Your task to perform on an android device: open a bookmark in the chrome app Image 0: 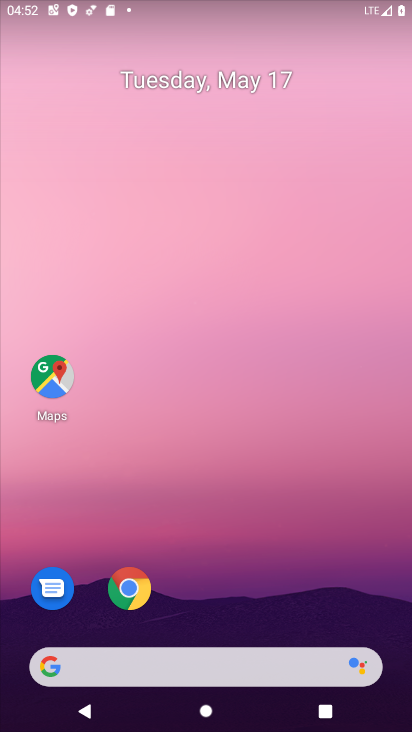
Step 0: drag from (235, 583) to (274, 167)
Your task to perform on an android device: open a bookmark in the chrome app Image 1: 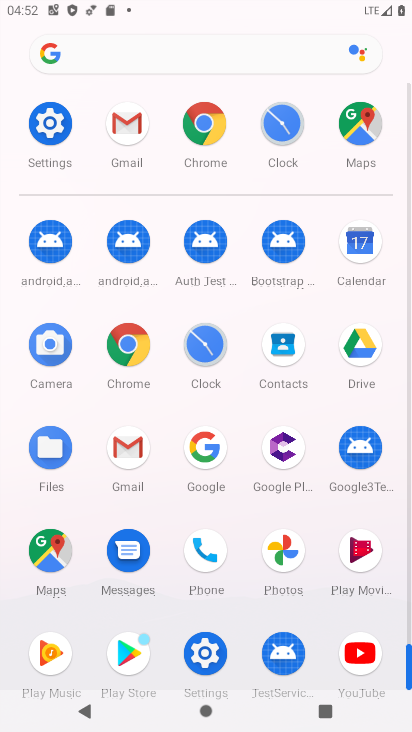
Step 1: click (204, 121)
Your task to perform on an android device: open a bookmark in the chrome app Image 2: 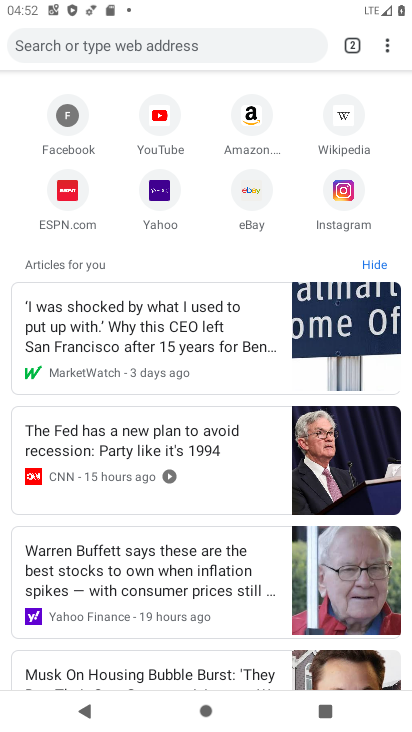
Step 2: click (387, 45)
Your task to perform on an android device: open a bookmark in the chrome app Image 3: 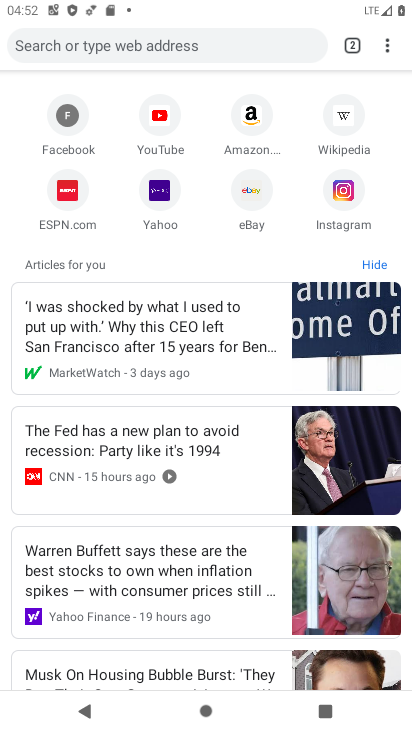
Step 3: click (387, 45)
Your task to perform on an android device: open a bookmark in the chrome app Image 4: 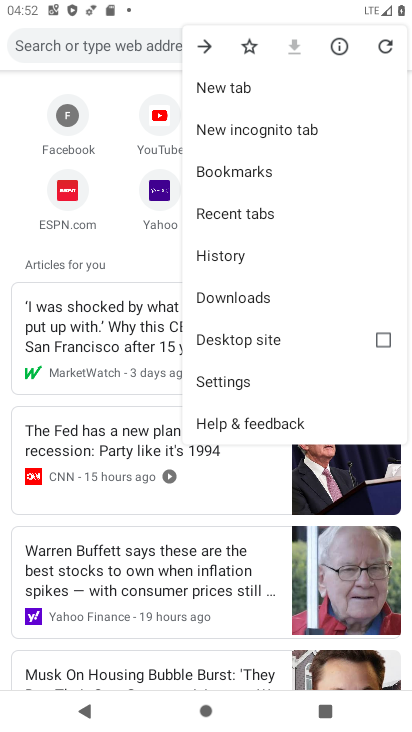
Step 4: click (262, 172)
Your task to perform on an android device: open a bookmark in the chrome app Image 5: 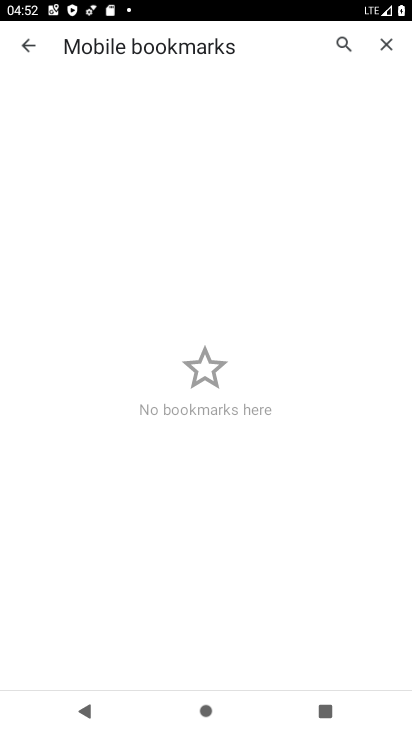
Step 5: task complete